Your task to perform on an android device: Open Reddit.com Image 0: 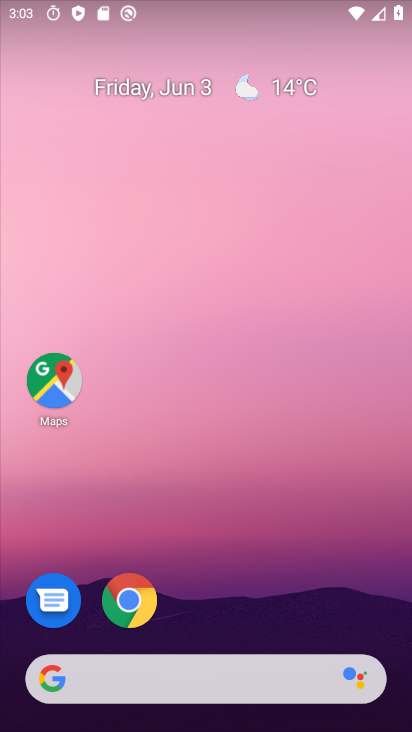
Step 0: drag from (320, 556) to (251, 4)
Your task to perform on an android device: Open Reddit.com Image 1: 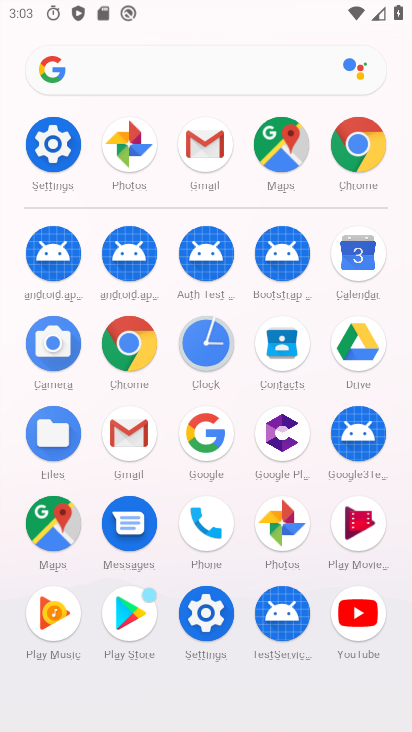
Step 1: click (123, 339)
Your task to perform on an android device: Open Reddit.com Image 2: 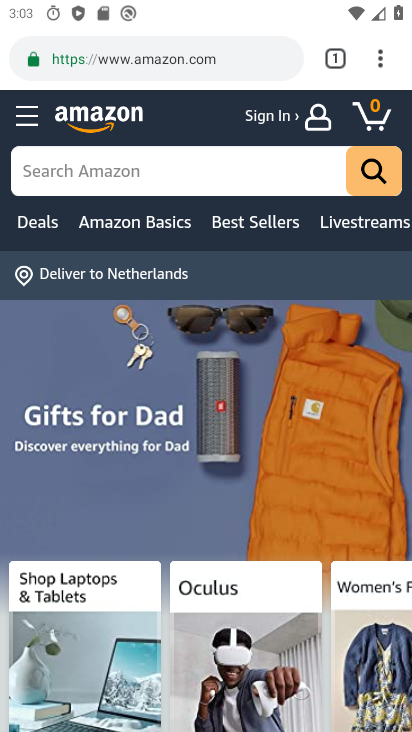
Step 2: click (200, 48)
Your task to perform on an android device: Open Reddit.com Image 3: 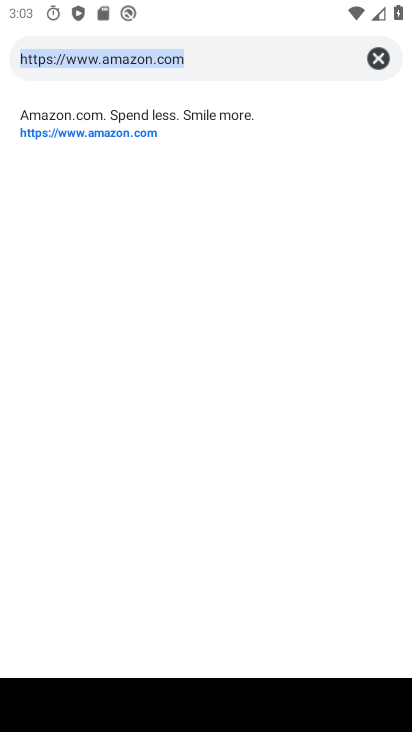
Step 3: click (373, 54)
Your task to perform on an android device: Open Reddit.com Image 4: 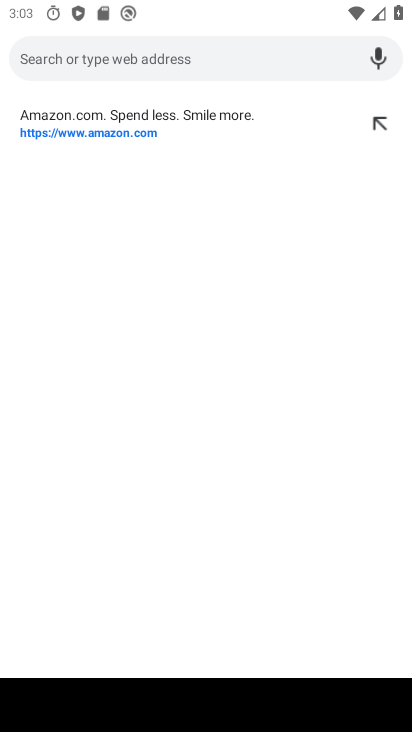
Step 4: type "Reddit.com"
Your task to perform on an android device: Open Reddit.com Image 5: 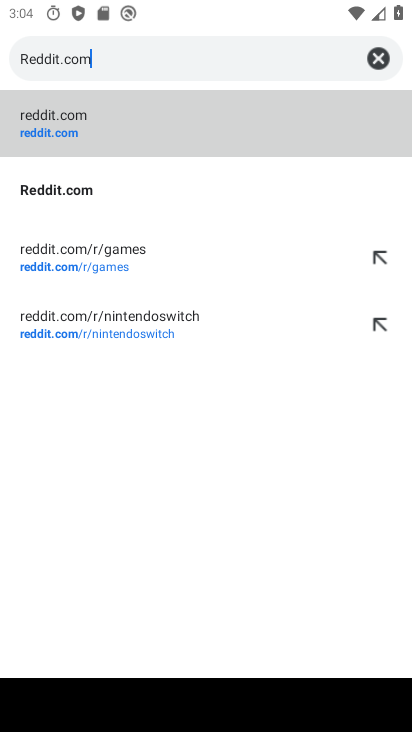
Step 5: click (129, 119)
Your task to perform on an android device: Open Reddit.com Image 6: 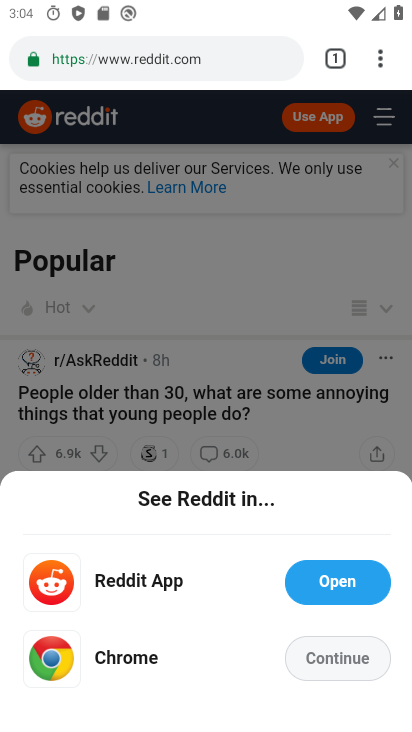
Step 6: task complete